Your task to perform on an android device: Clear the cart on walmart.com. Search for logitech g pro on walmart.com, select the first entry, and add it to the cart. Image 0: 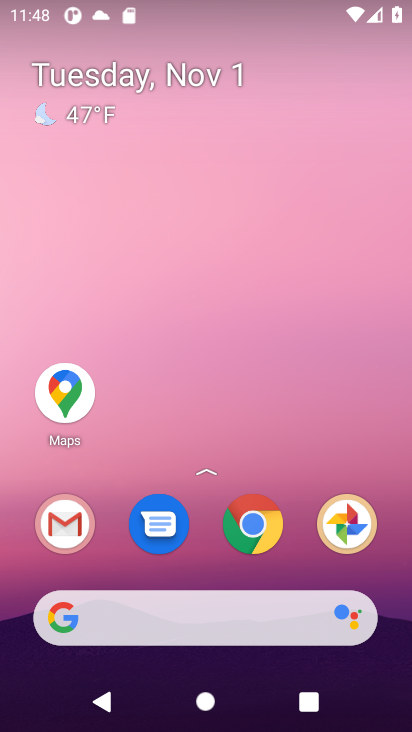
Step 0: press home button
Your task to perform on an android device: Clear the cart on walmart.com. Search for logitech g pro on walmart.com, select the first entry, and add it to the cart. Image 1: 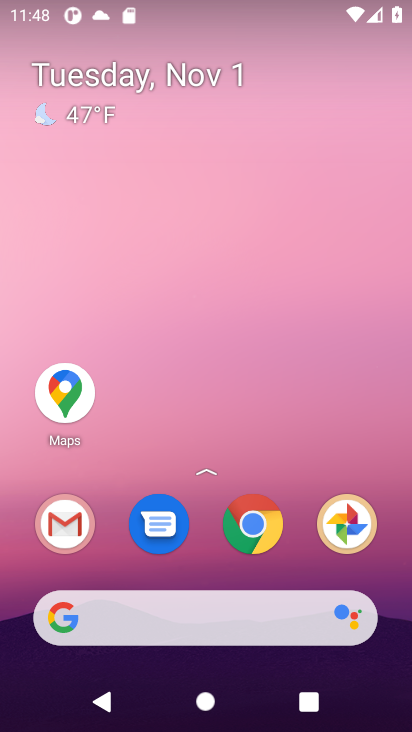
Step 1: click (97, 615)
Your task to perform on an android device: Clear the cart on walmart.com. Search for logitech g pro on walmart.com, select the first entry, and add it to the cart. Image 2: 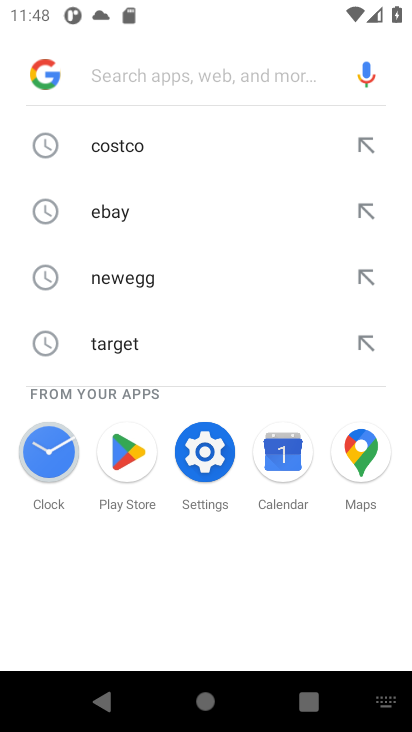
Step 2: type "walmart.com"
Your task to perform on an android device: Clear the cart on walmart.com. Search for logitech g pro on walmart.com, select the first entry, and add it to the cart. Image 3: 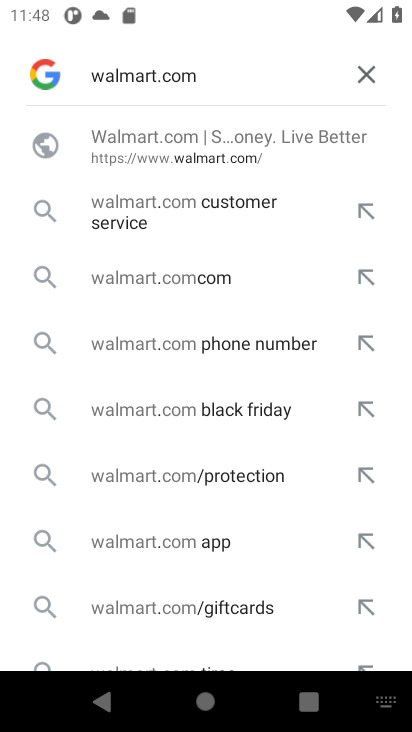
Step 3: press enter
Your task to perform on an android device: Clear the cart on walmart.com. Search for logitech g pro on walmart.com, select the first entry, and add it to the cart. Image 4: 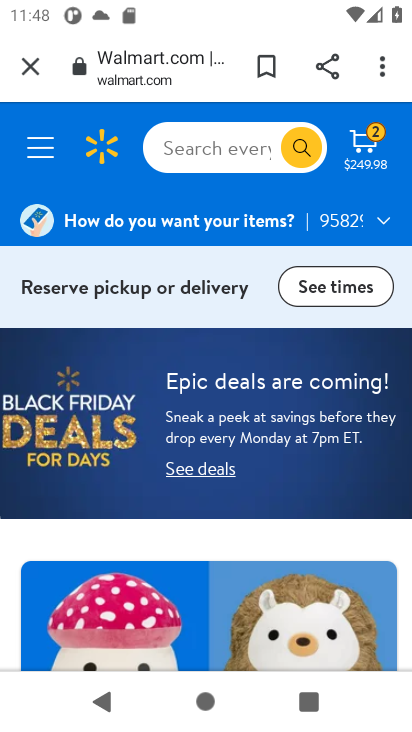
Step 4: click (367, 143)
Your task to perform on an android device: Clear the cart on walmart.com. Search for logitech g pro on walmart.com, select the first entry, and add it to the cart. Image 5: 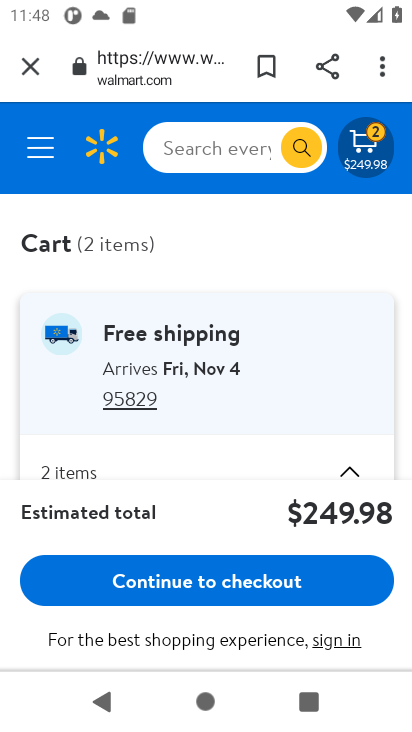
Step 5: drag from (150, 435) to (182, 217)
Your task to perform on an android device: Clear the cart on walmart.com. Search for logitech g pro on walmart.com, select the first entry, and add it to the cart. Image 6: 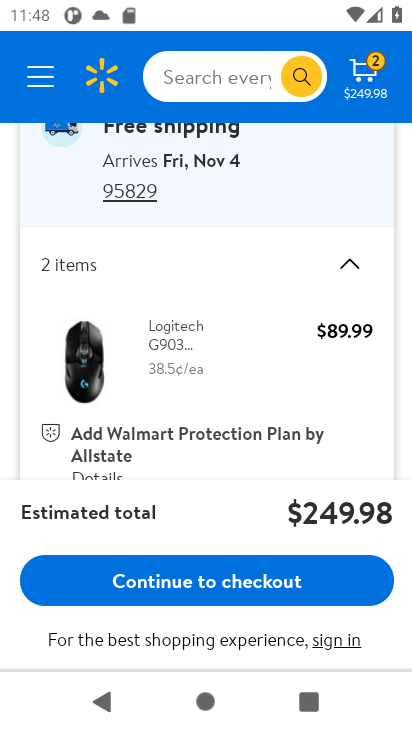
Step 6: drag from (184, 436) to (185, 239)
Your task to perform on an android device: Clear the cart on walmart.com. Search for logitech g pro on walmart.com, select the first entry, and add it to the cart. Image 7: 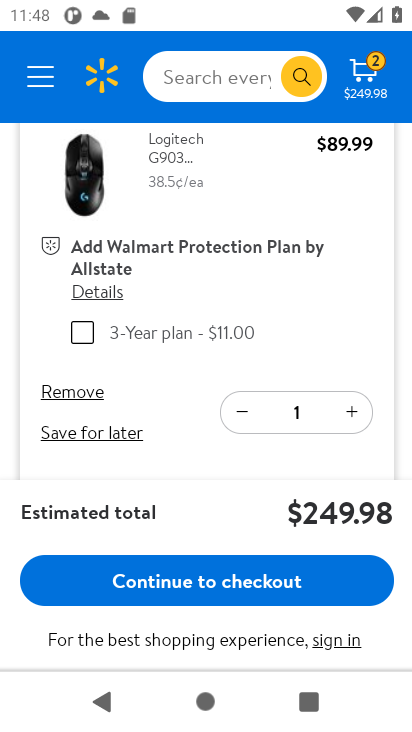
Step 7: click (66, 395)
Your task to perform on an android device: Clear the cart on walmart.com. Search for logitech g pro on walmart.com, select the first entry, and add it to the cart. Image 8: 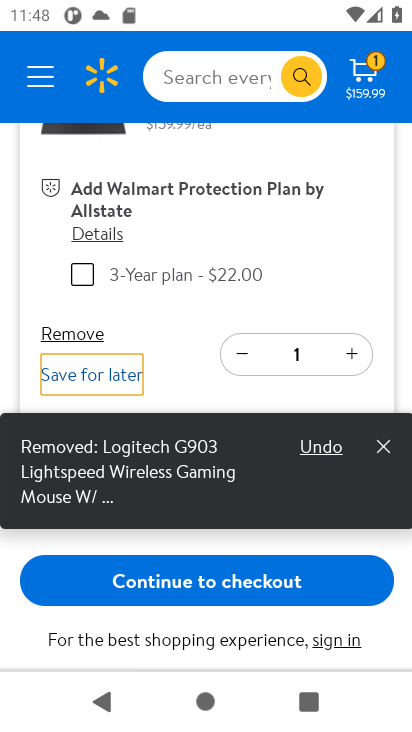
Step 8: click (61, 335)
Your task to perform on an android device: Clear the cart on walmart.com. Search for logitech g pro on walmart.com, select the first entry, and add it to the cart. Image 9: 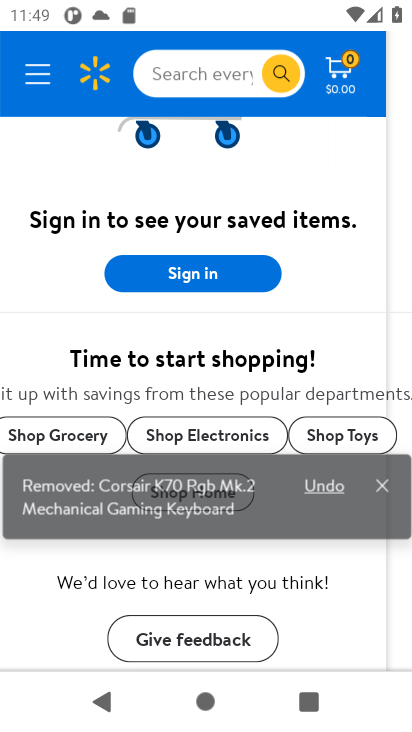
Step 9: click (185, 78)
Your task to perform on an android device: Clear the cart on walmart.com. Search for logitech g pro on walmart.com, select the first entry, and add it to the cart. Image 10: 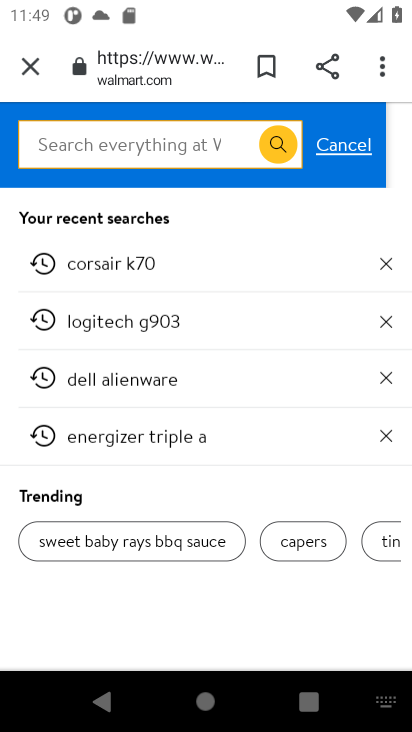
Step 10: type " logitech g pro"
Your task to perform on an android device: Clear the cart on walmart.com. Search for logitech g pro on walmart.com, select the first entry, and add it to the cart. Image 11: 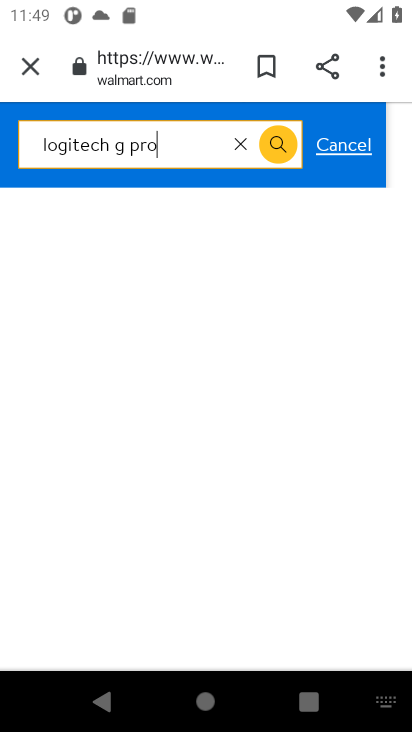
Step 11: press enter
Your task to perform on an android device: Clear the cart on walmart.com. Search for logitech g pro on walmart.com, select the first entry, and add it to the cart. Image 12: 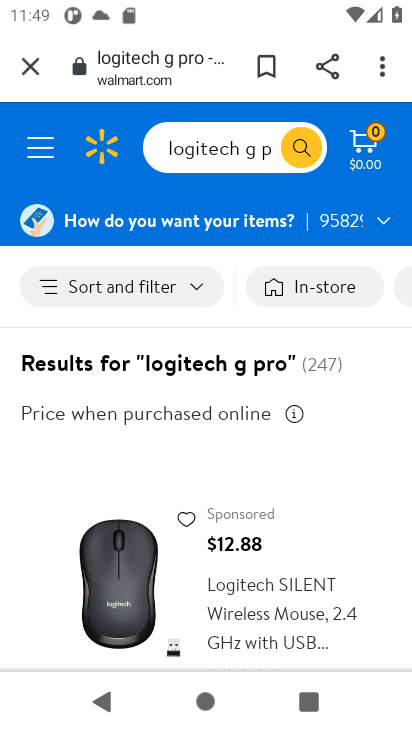
Step 12: drag from (290, 577) to (288, 381)
Your task to perform on an android device: Clear the cart on walmart.com. Search for logitech g pro on walmart.com, select the first entry, and add it to the cart. Image 13: 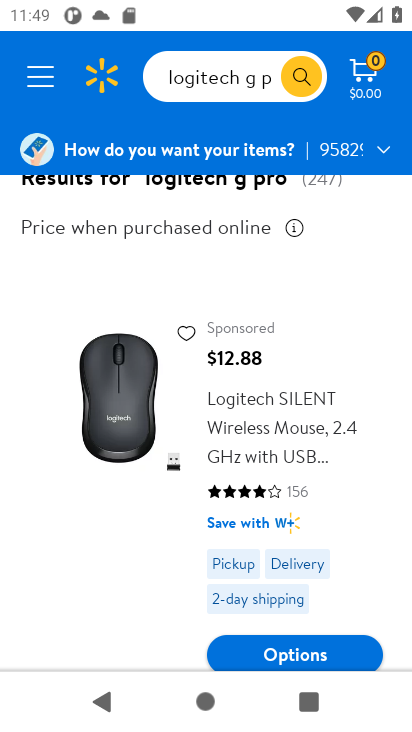
Step 13: drag from (265, 537) to (279, 399)
Your task to perform on an android device: Clear the cart on walmart.com. Search for logitech g pro on walmart.com, select the first entry, and add it to the cart. Image 14: 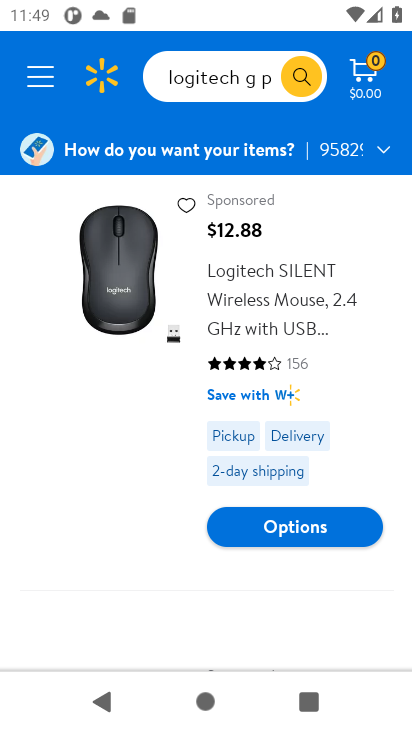
Step 14: drag from (253, 591) to (270, 308)
Your task to perform on an android device: Clear the cart on walmart.com. Search for logitech g pro on walmart.com, select the first entry, and add it to the cart. Image 15: 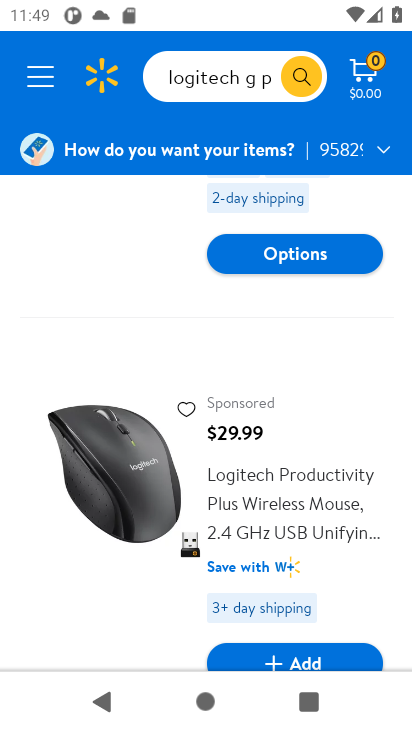
Step 15: drag from (256, 583) to (284, 375)
Your task to perform on an android device: Clear the cart on walmart.com. Search for logitech g pro on walmart.com, select the first entry, and add it to the cart. Image 16: 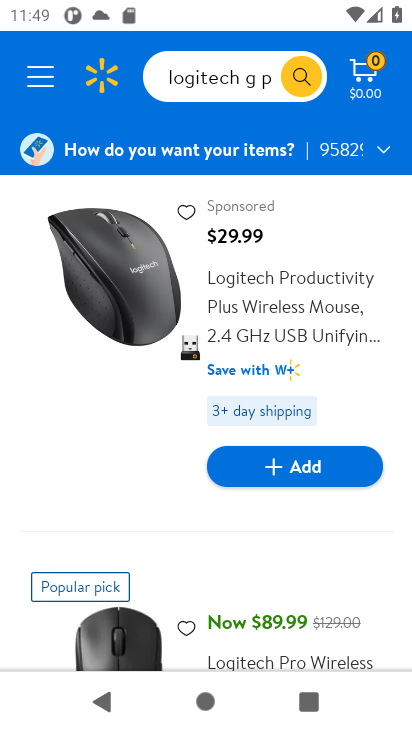
Step 16: drag from (264, 606) to (262, 372)
Your task to perform on an android device: Clear the cart on walmart.com. Search for logitech g pro on walmart.com, select the first entry, and add it to the cart. Image 17: 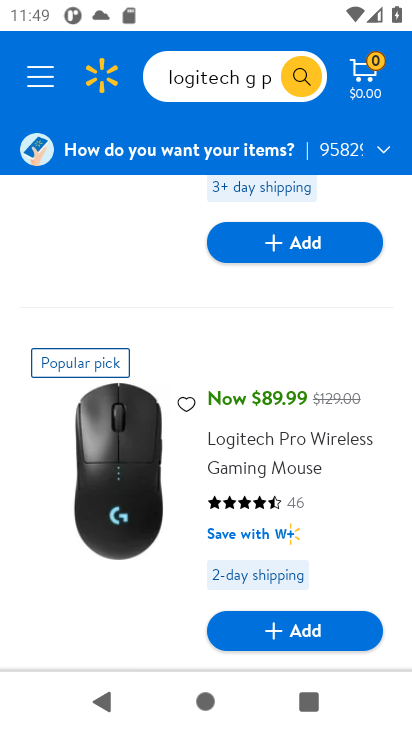
Step 17: drag from (247, 595) to (282, 349)
Your task to perform on an android device: Clear the cart on walmart.com. Search for logitech g pro on walmart.com, select the first entry, and add it to the cart. Image 18: 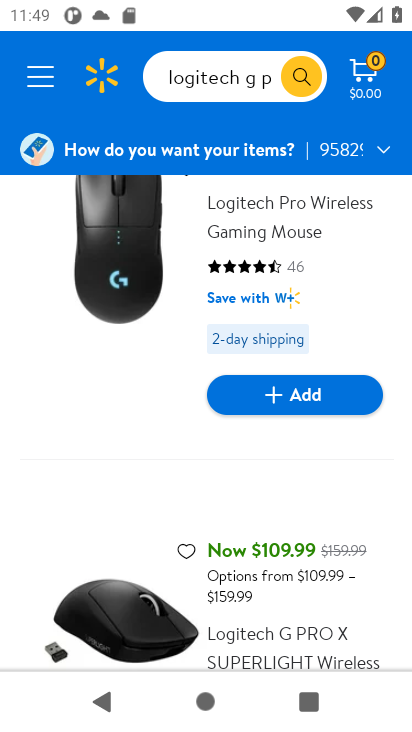
Step 18: drag from (271, 649) to (293, 429)
Your task to perform on an android device: Clear the cart on walmart.com. Search for logitech g pro on walmart.com, select the first entry, and add it to the cart. Image 19: 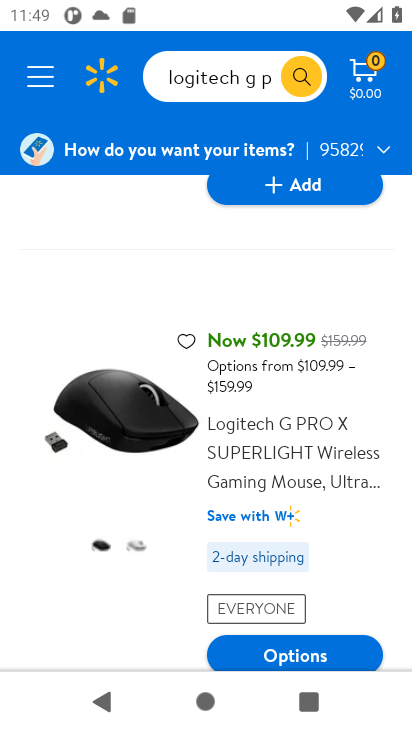
Step 19: drag from (334, 537) to (334, 361)
Your task to perform on an android device: Clear the cart on walmart.com. Search for logitech g pro on walmart.com, select the first entry, and add it to the cart. Image 20: 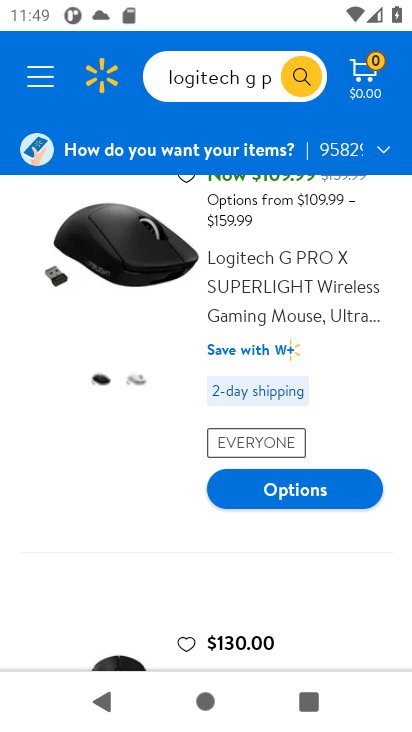
Step 20: click (275, 284)
Your task to perform on an android device: Clear the cart on walmart.com. Search for logitech g pro on walmart.com, select the first entry, and add it to the cart. Image 21: 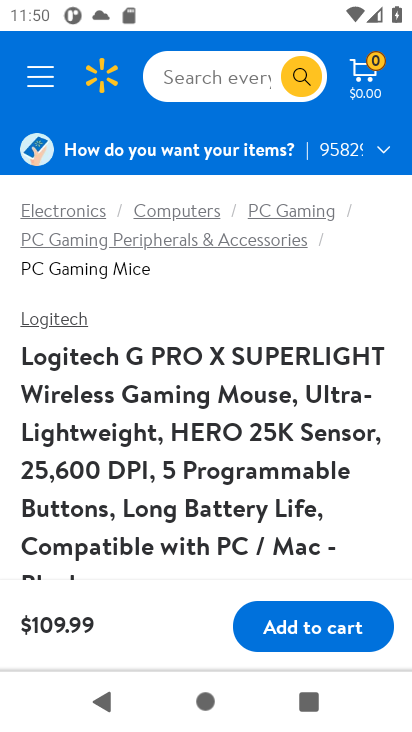
Step 21: click (314, 627)
Your task to perform on an android device: Clear the cart on walmart.com. Search for logitech g pro on walmart.com, select the first entry, and add it to the cart. Image 22: 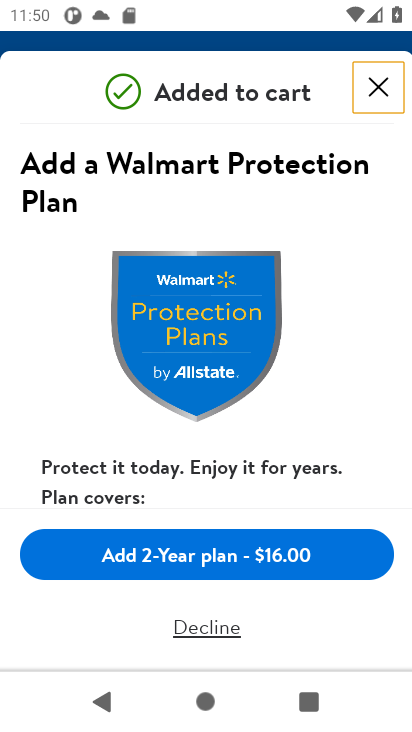
Step 22: click (201, 625)
Your task to perform on an android device: Clear the cart on walmart.com. Search for logitech g pro on walmart.com, select the first entry, and add it to the cart. Image 23: 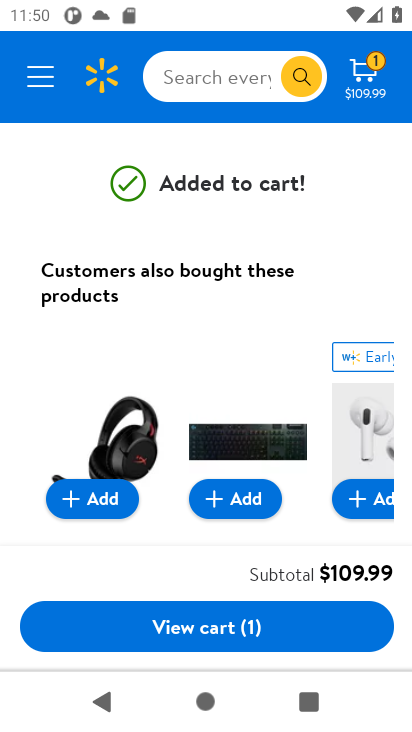
Step 23: task complete